Your task to perform on an android device: toggle improve location accuracy Image 0: 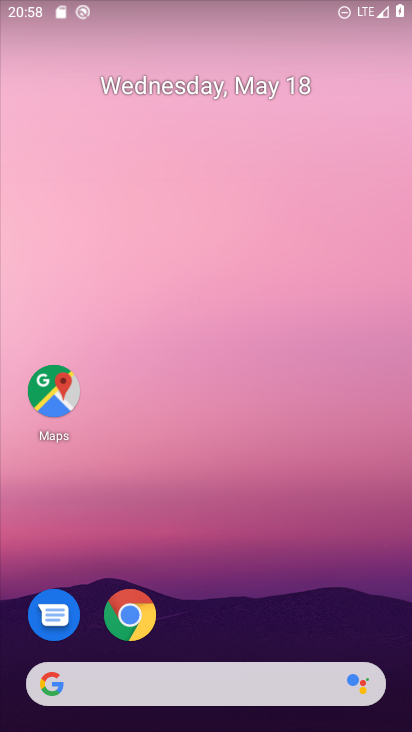
Step 0: drag from (178, 676) to (245, 18)
Your task to perform on an android device: toggle improve location accuracy Image 1: 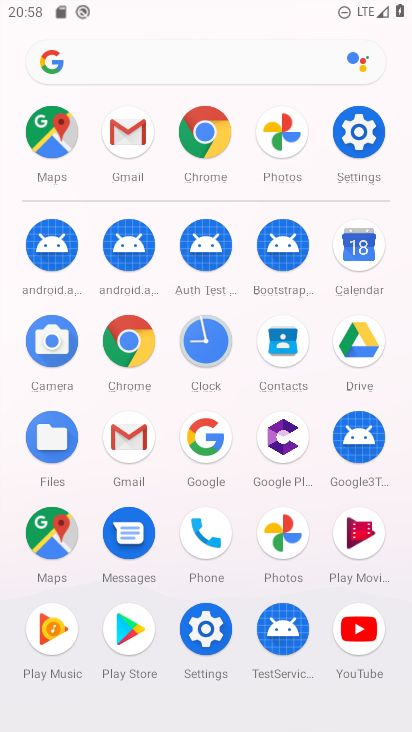
Step 1: click (361, 143)
Your task to perform on an android device: toggle improve location accuracy Image 2: 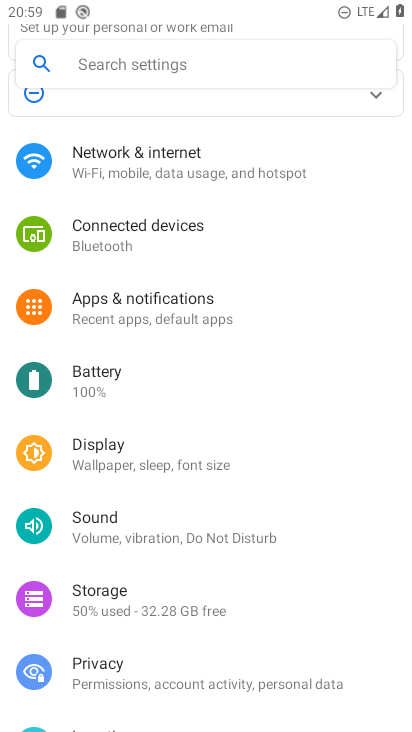
Step 2: drag from (140, 670) to (131, 271)
Your task to perform on an android device: toggle improve location accuracy Image 3: 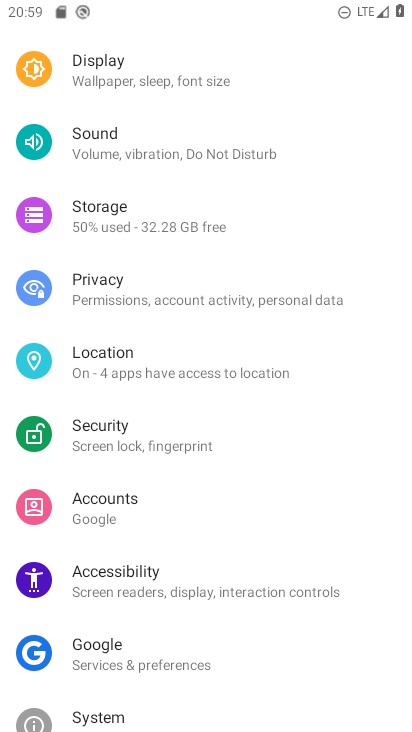
Step 3: click (111, 365)
Your task to perform on an android device: toggle improve location accuracy Image 4: 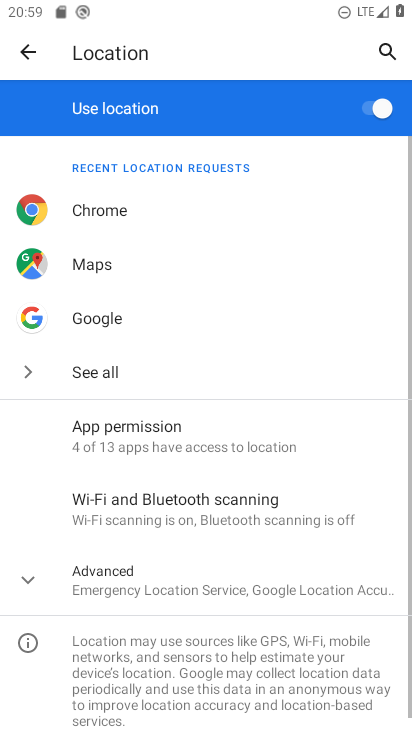
Step 4: click (205, 594)
Your task to perform on an android device: toggle improve location accuracy Image 5: 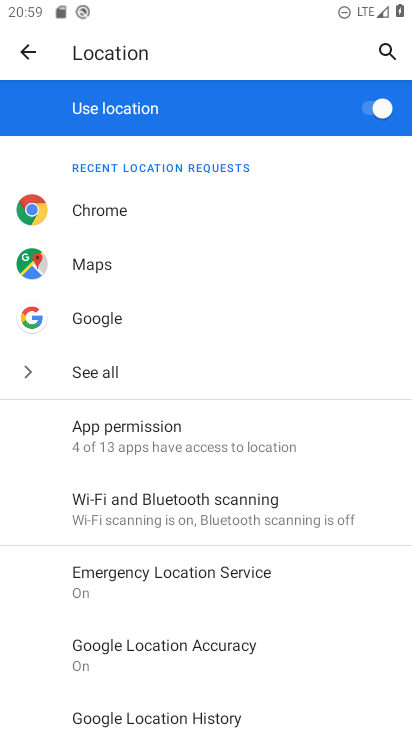
Step 5: click (185, 642)
Your task to perform on an android device: toggle improve location accuracy Image 6: 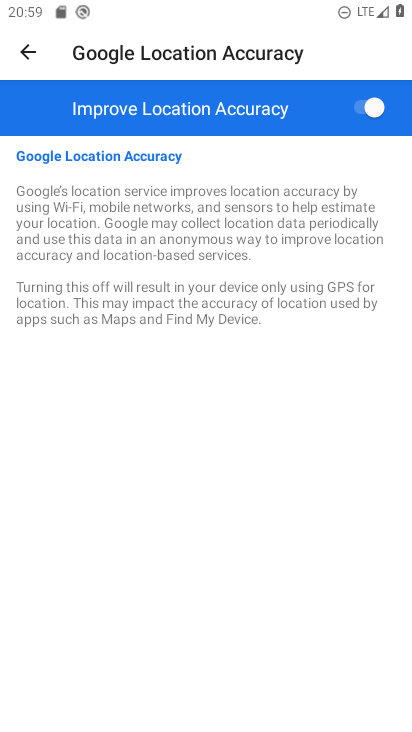
Step 6: click (380, 110)
Your task to perform on an android device: toggle improve location accuracy Image 7: 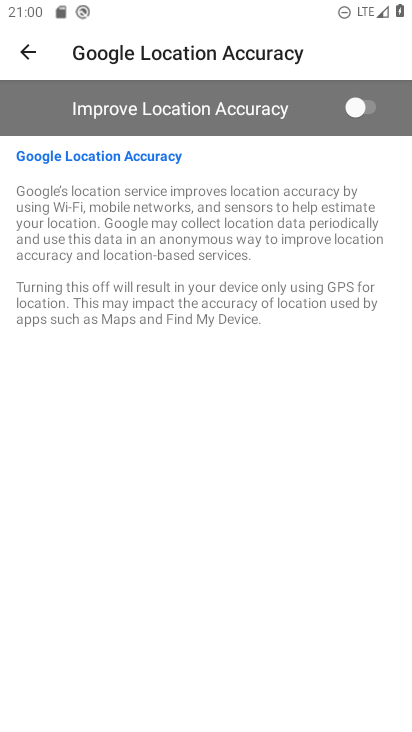
Step 7: task complete